Your task to perform on an android device: toggle show notifications on the lock screen Image 0: 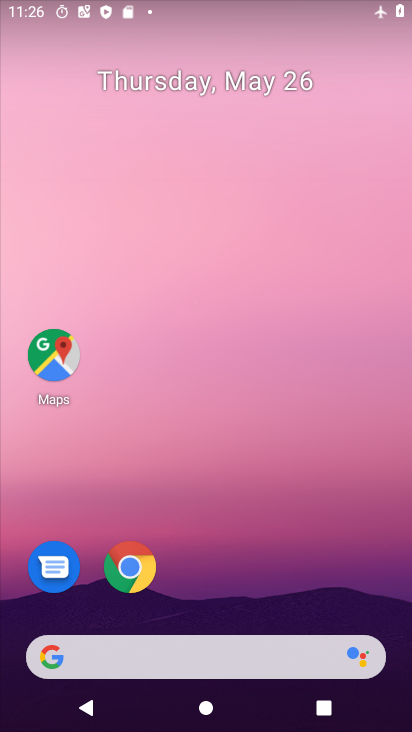
Step 0: drag from (256, 537) to (256, 142)
Your task to perform on an android device: toggle show notifications on the lock screen Image 1: 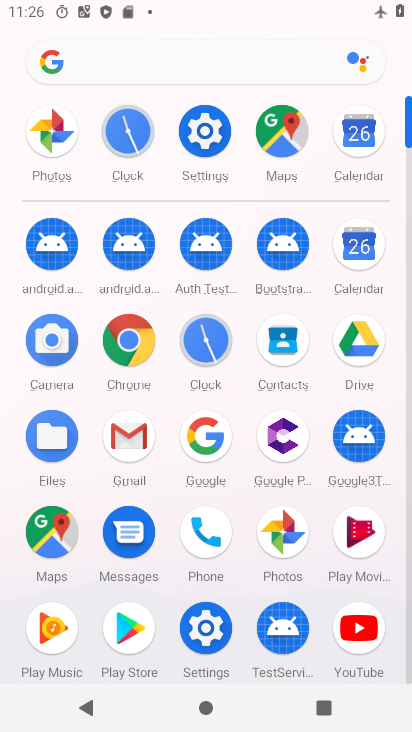
Step 1: click (202, 132)
Your task to perform on an android device: toggle show notifications on the lock screen Image 2: 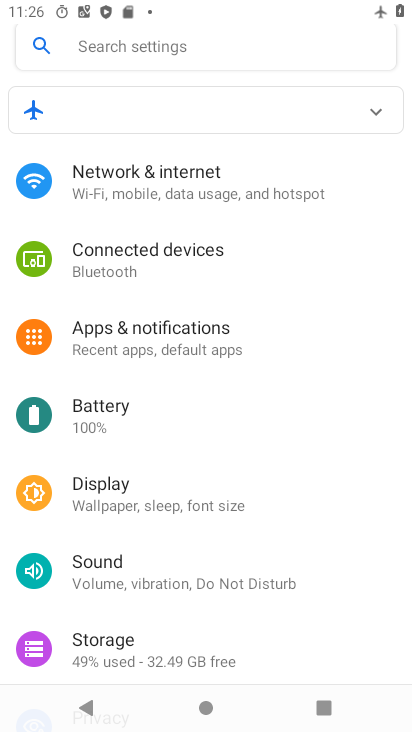
Step 2: click (263, 339)
Your task to perform on an android device: toggle show notifications on the lock screen Image 3: 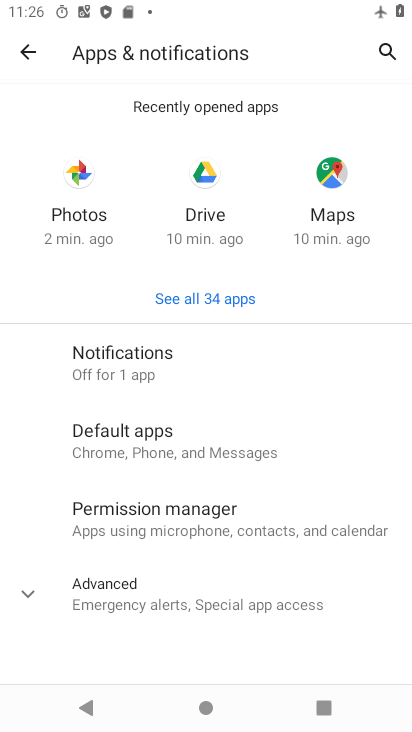
Step 3: click (194, 366)
Your task to perform on an android device: toggle show notifications on the lock screen Image 4: 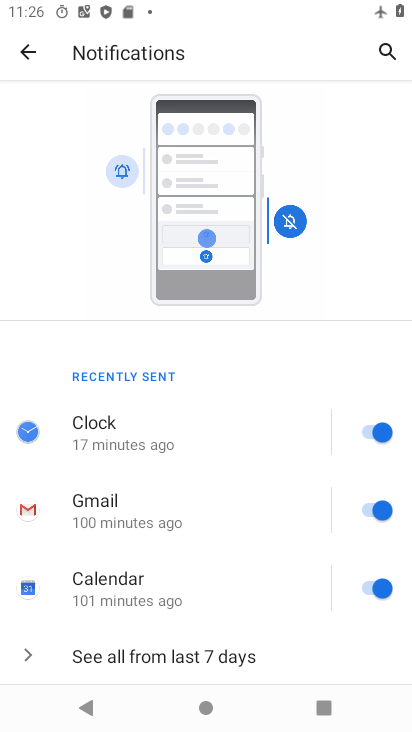
Step 4: drag from (242, 622) to (245, 183)
Your task to perform on an android device: toggle show notifications on the lock screen Image 5: 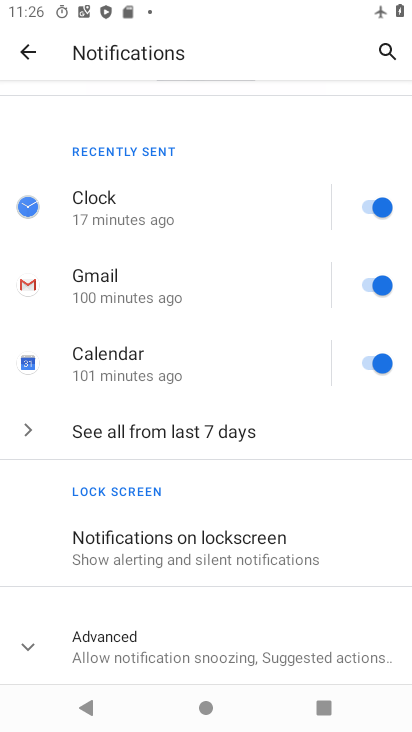
Step 5: click (259, 555)
Your task to perform on an android device: toggle show notifications on the lock screen Image 6: 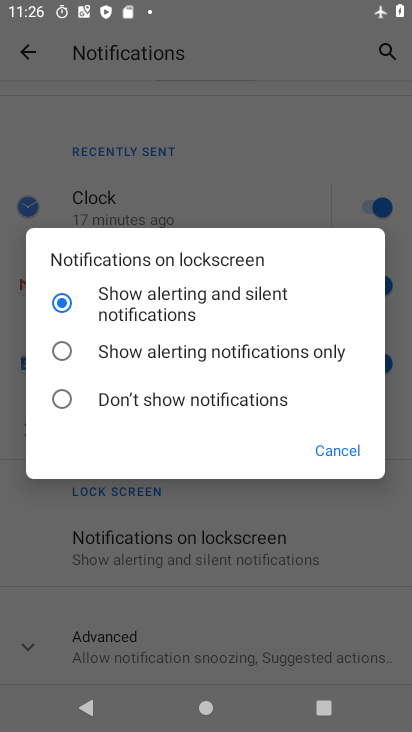
Step 6: task complete